Your task to perform on an android device: open chrome privacy settings Image 0: 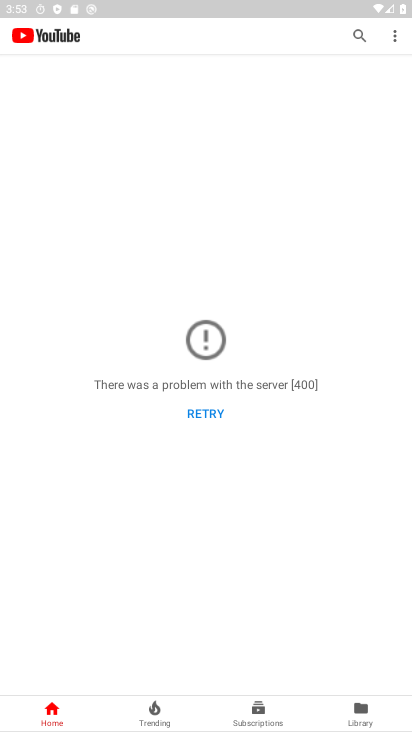
Step 0: press back button
Your task to perform on an android device: open chrome privacy settings Image 1: 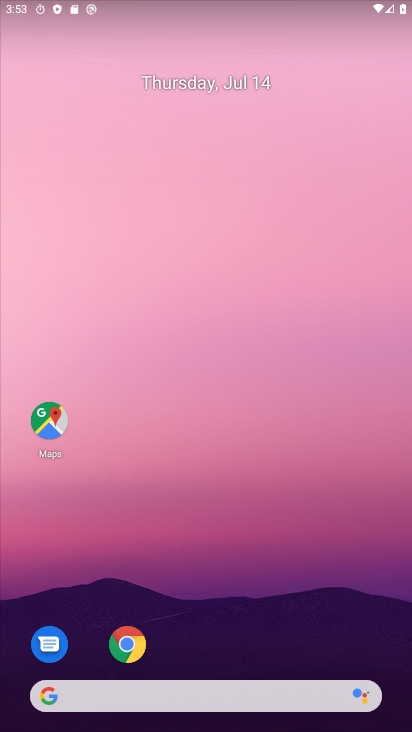
Step 1: click (127, 648)
Your task to perform on an android device: open chrome privacy settings Image 2: 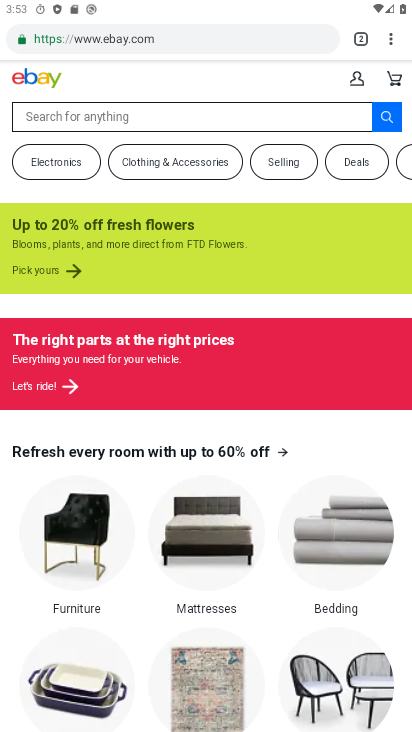
Step 2: drag from (395, 36) to (242, 465)
Your task to perform on an android device: open chrome privacy settings Image 3: 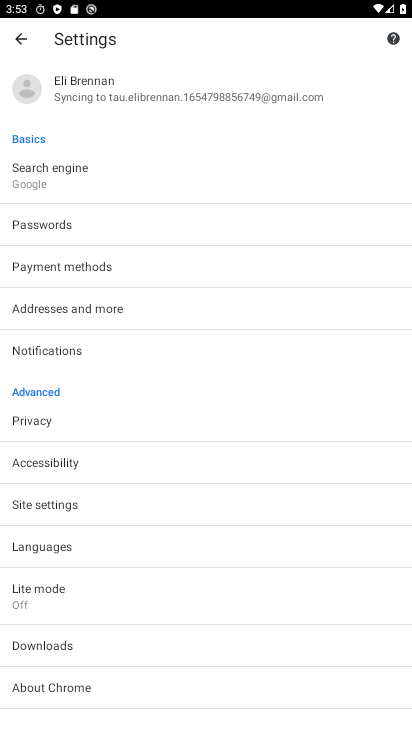
Step 3: click (42, 419)
Your task to perform on an android device: open chrome privacy settings Image 4: 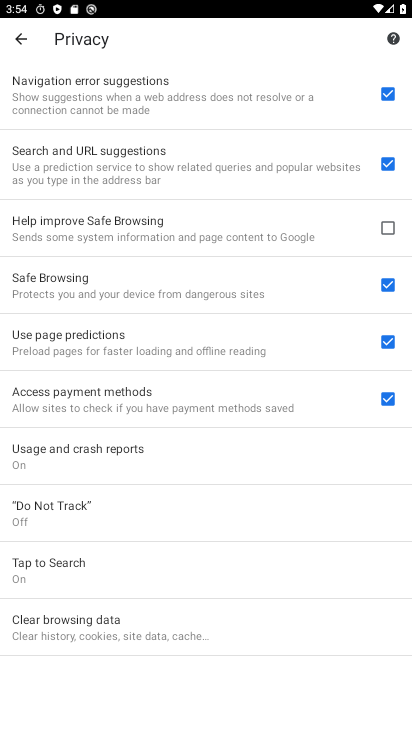
Step 4: task complete